Your task to perform on an android device: turn off notifications in google photos Image 0: 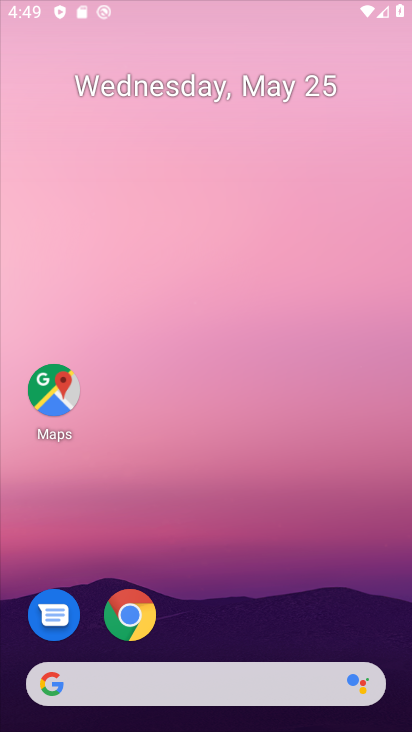
Step 0: press home button
Your task to perform on an android device: turn off notifications in google photos Image 1: 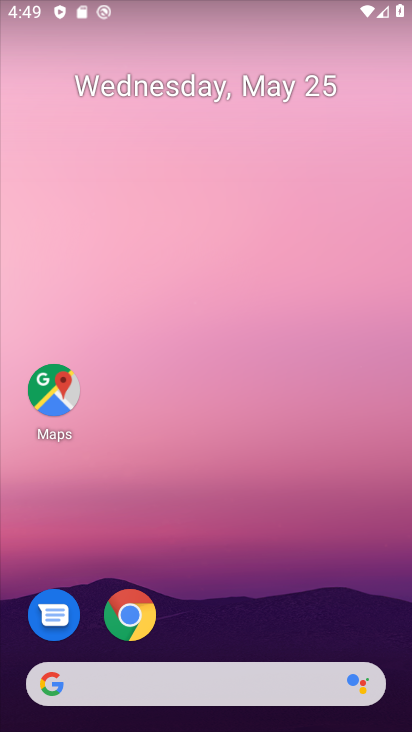
Step 1: drag from (277, 604) to (281, 11)
Your task to perform on an android device: turn off notifications in google photos Image 2: 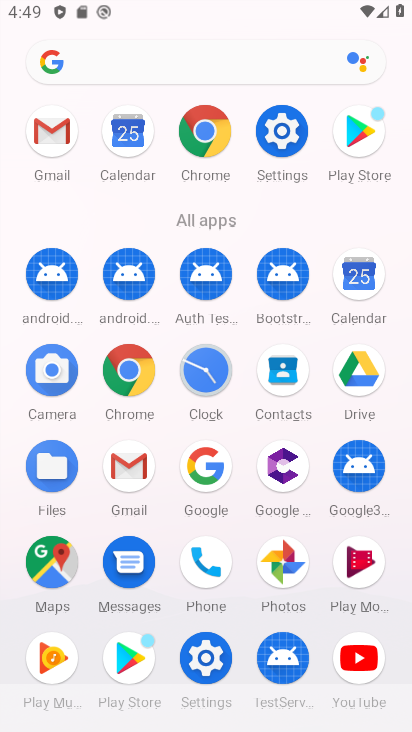
Step 2: click (279, 566)
Your task to perform on an android device: turn off notifications in google photos Image 3: 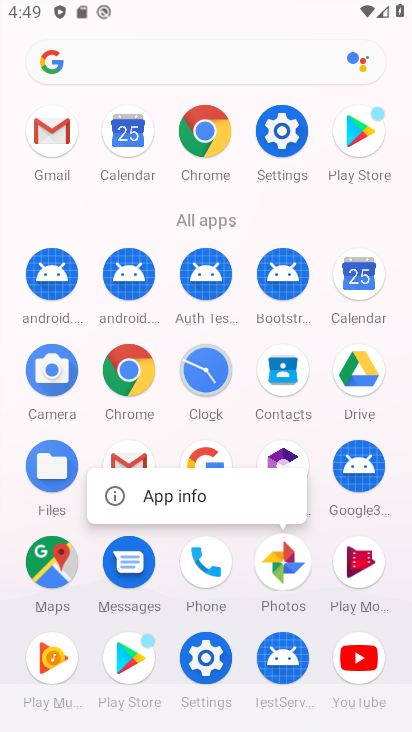
Step 3: click (262, 484)
Your task to perform on an android device: turn off notifications in google photos Image 4: 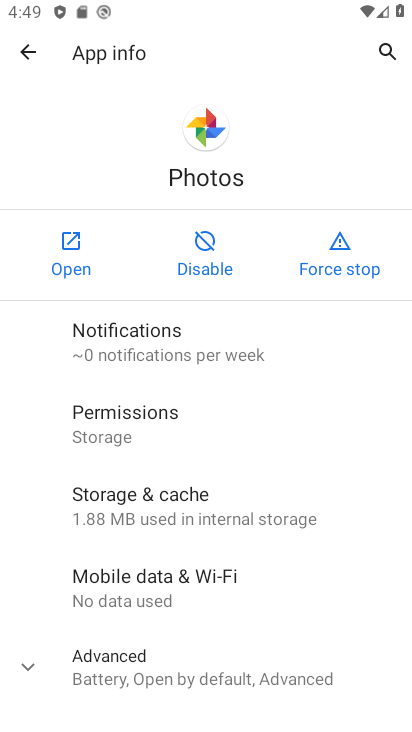
Step 4: click (250, 343)
Your task to perform on an android device: turn off notifications in google photos Image 5: 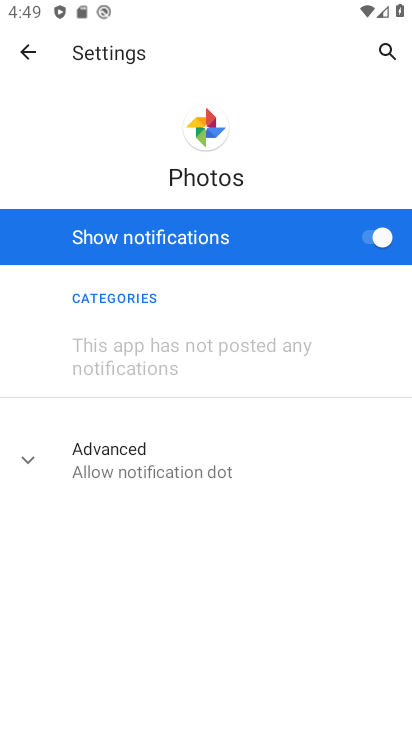
Step 5: click (326, 256)
Your task to perform on an android device: turn off notifications in google photos Image 6: 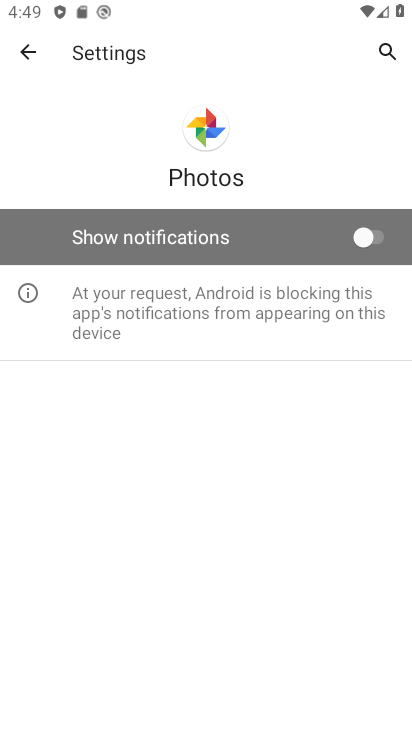
Step 6: task complete